Your task to perform on an android device: open the mobile data screen to see how much data has been used Image 0: 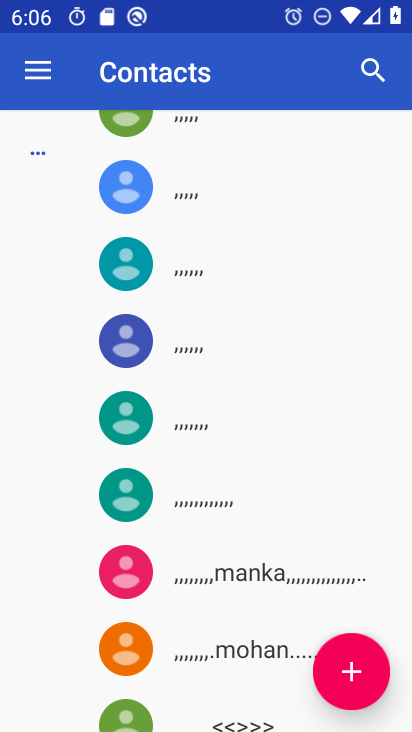
Step 0: press home button
Your task to perform on an android device: open the mobile data screen to see how much data has been used Image 1: 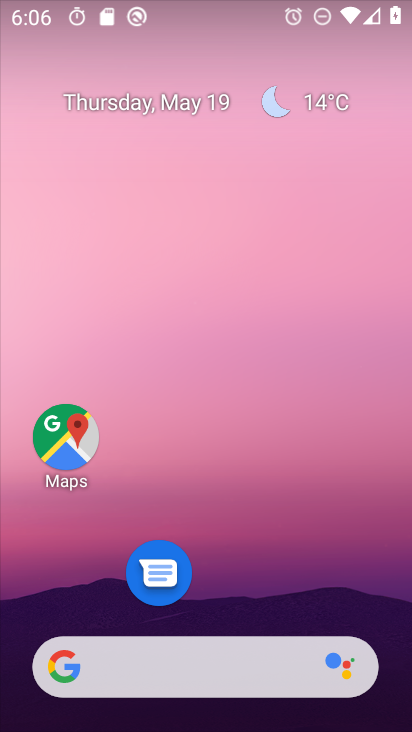
Step 1: drag from (278, 610) to (185, 191)
Your task to perform on an android device: open the mobile data screen to see how much data has been used Image 2: 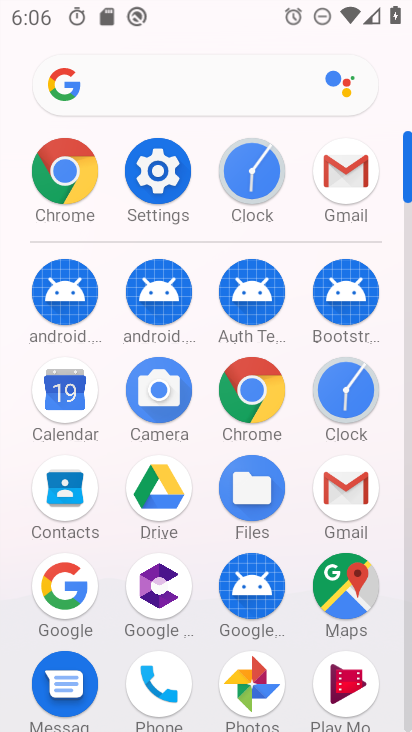
Step 2: click (137, 170)
Your task to perform on an android device: open the mobile data screen to see how much data has been used Image 3: 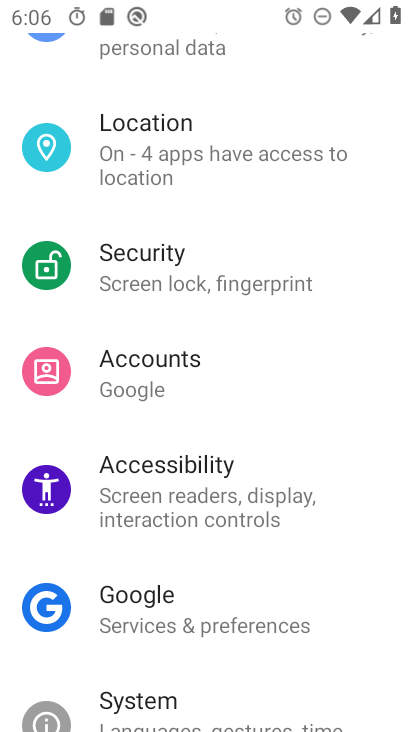
Step 3: drag from (228, 175) to (183, 447)
Your task to perform on an android device: open the mobile data screen to see how much data has been used Image 4: 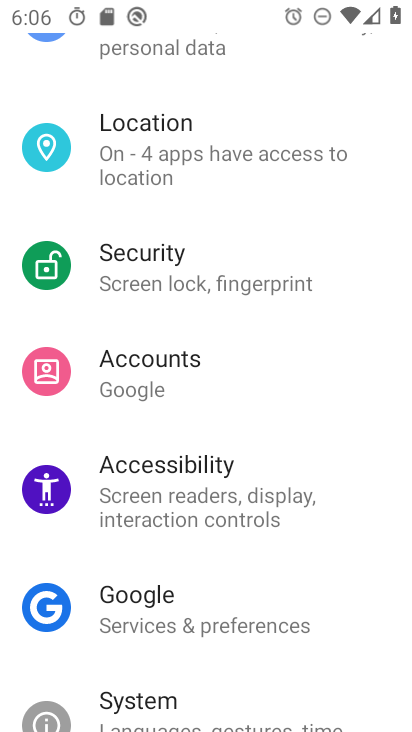
Step 4: drag from (207, 122) to (178, 359)
Your task to perform on an android device: open the mobile data screen to see how much data has been used Image 5: 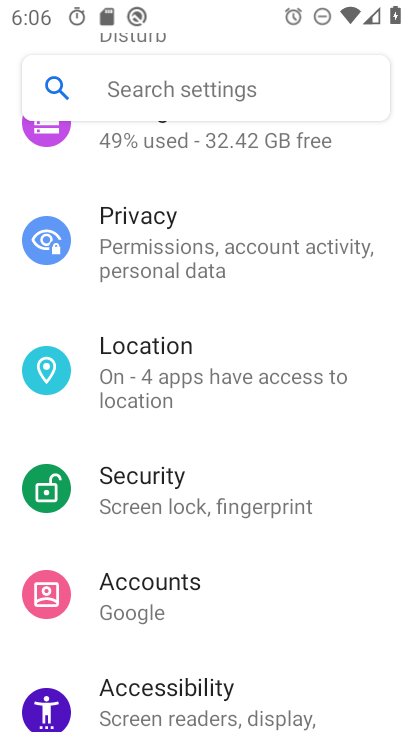
Step 5: drag from (191, 244) to (192, 478)
Your task to perform on an android device: open the mobile data screen to see how much data has been used Image 6: 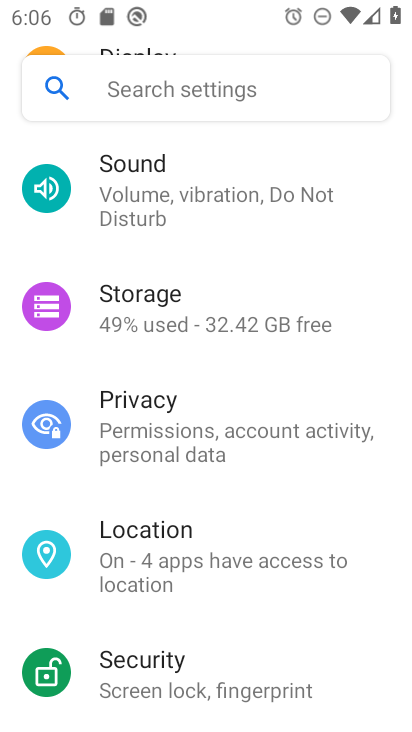
Step 6: drag from (235, 273) to (226, 513)
Your task to perform on an android device: open the mobile data screen to see how much data has been used Image 7: 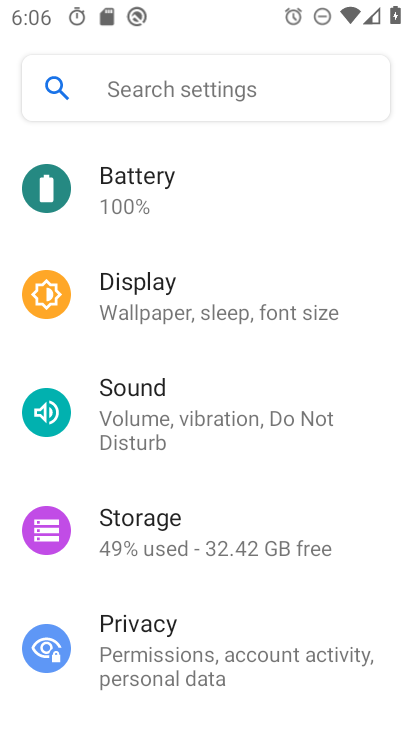
Step 7: drag from (240, 323) to (234, 563)
Your task to perform on an android device: open the mobile data screen to see how much data has been used Image 8: 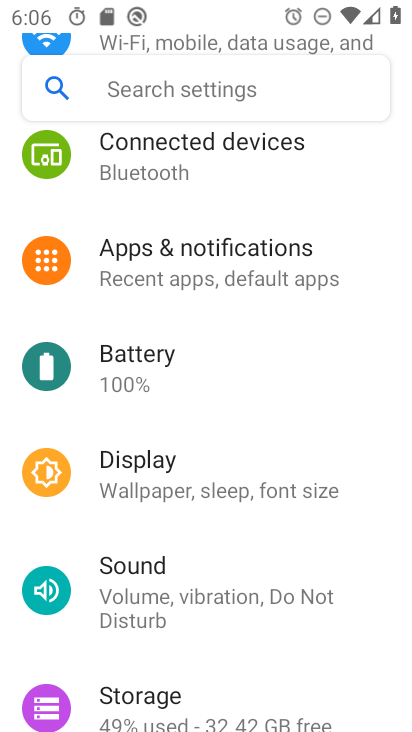
Step 8: drag from (241, 309) to (247, 558)
Your task to perform on an android device: open the mobile data screen to see how much data has been used Image 9: 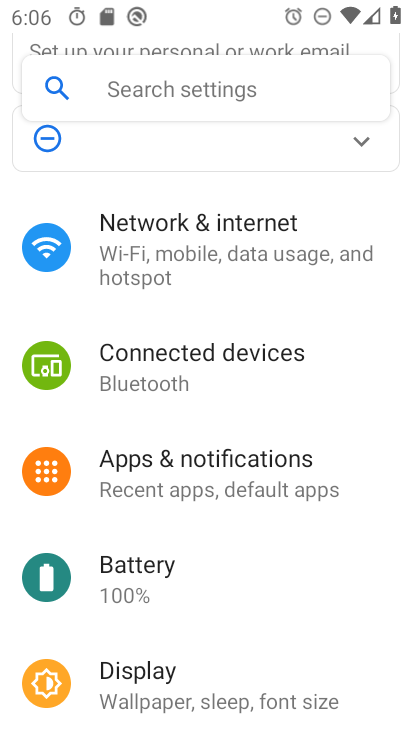
Step 9: click (193, 271)
Your task to perform on an android device: open the mobile data screen to see how much data has been used Image 10: 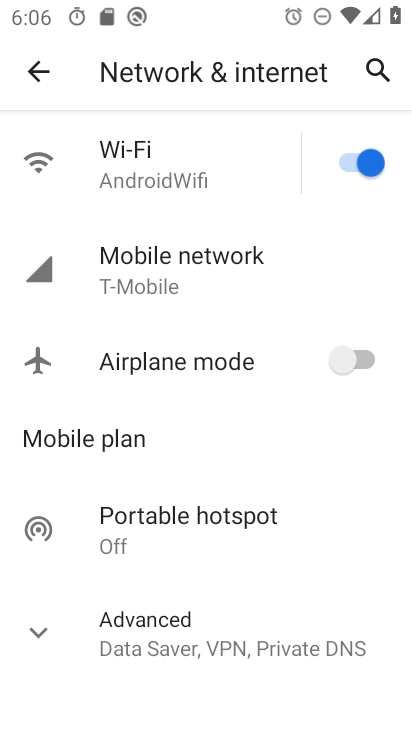
Step 10: click (193, 271)
Your task to perform on an android device: open the mobile data screen to see how much data has been used Image 11: 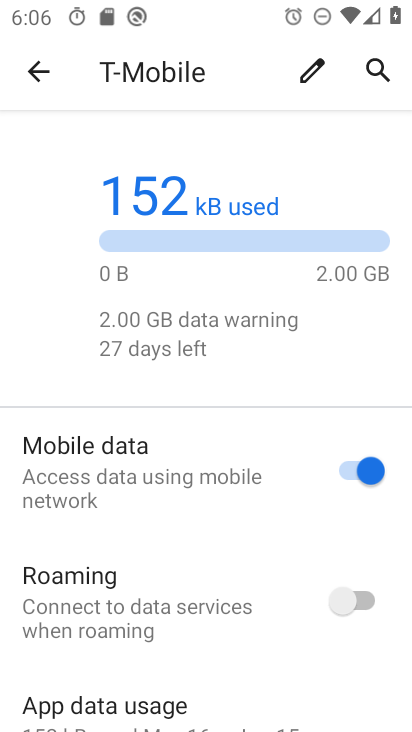
Step 11: task complete